Your task to perform on an android device: visit the assistant section in the google photos Image 0: 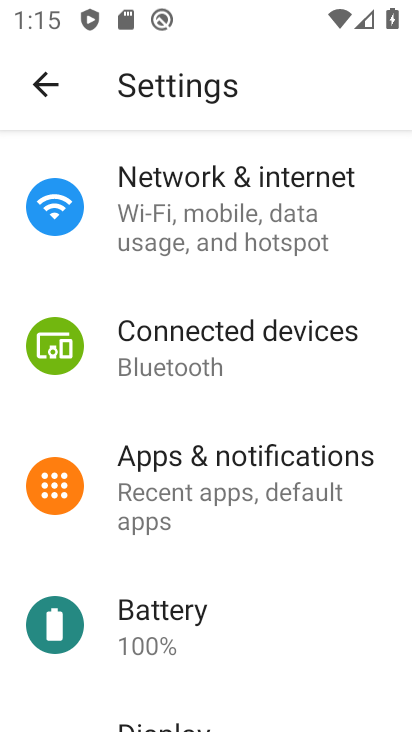
Step 0: press home button
Your task to perform on an android device: visit the assistant section in the google photos Image 1: 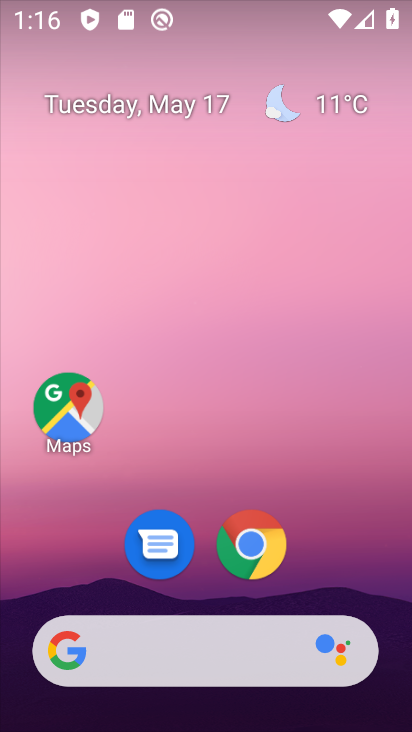
Step 1: drag from (368, 553) to (294, 157)
Your task to perform on an android device: visit the assistant section in the google photos Image 2: 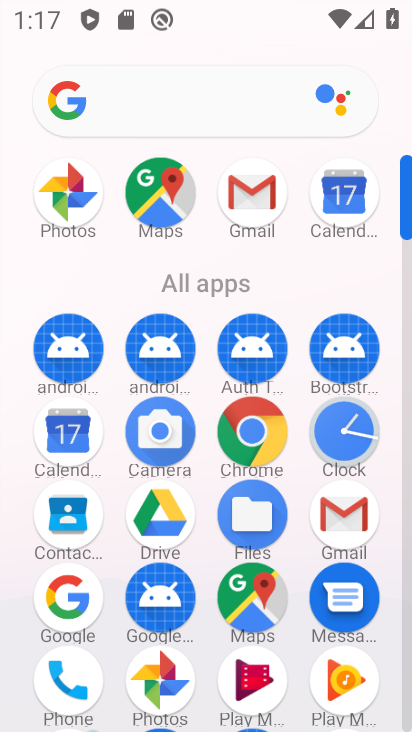
Step 2: click (134, 694)
Your task to perform on an android device: visit the assistant section in the google photos Image 3: 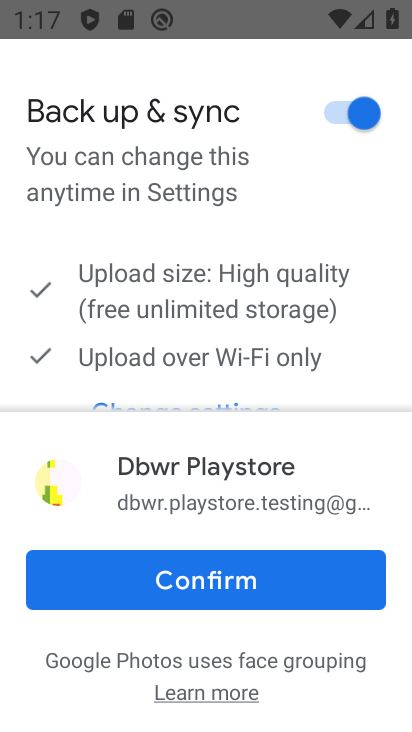
Step 3: click (246, 562)
Your task to perform on an android device: visit the assistant section in the google photos Image 4: 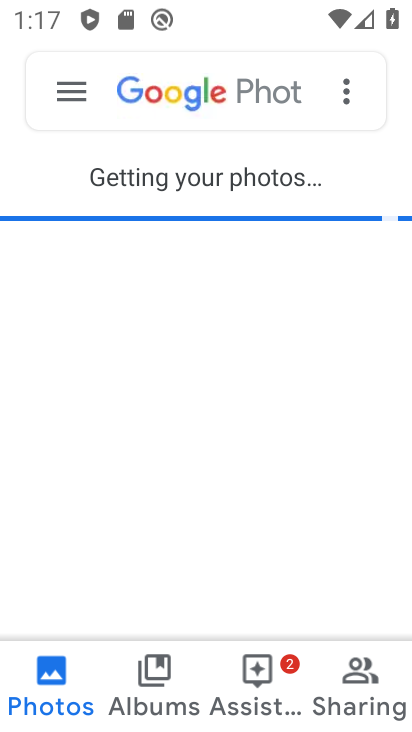
Step 4: click (252, 687)
Your task to perform on an android device: visit the assistant section in the google photos Image 5: 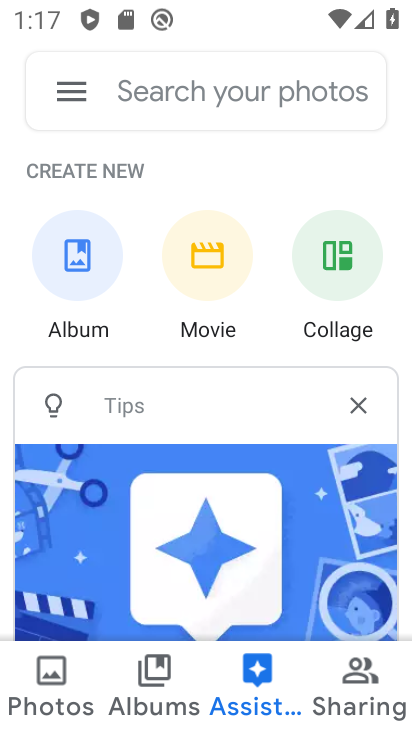
Step 5: task complete